Your task to perform on an android device: What is the recent news? Image 0: 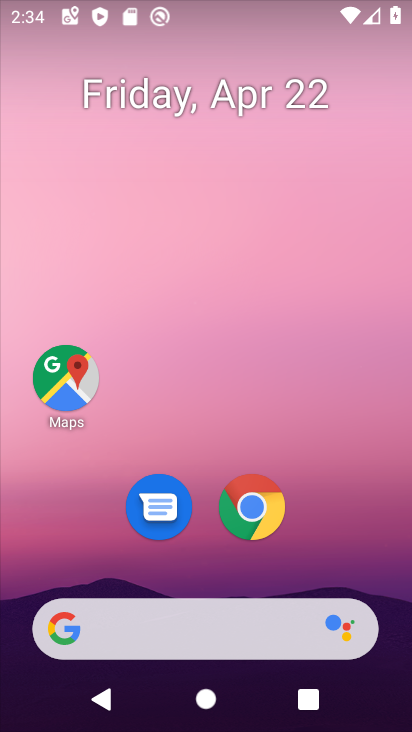
Step 0: drag from (16, 289) to (380, 229)
Your task to perform on an android device: What is the recent news? Image 1: 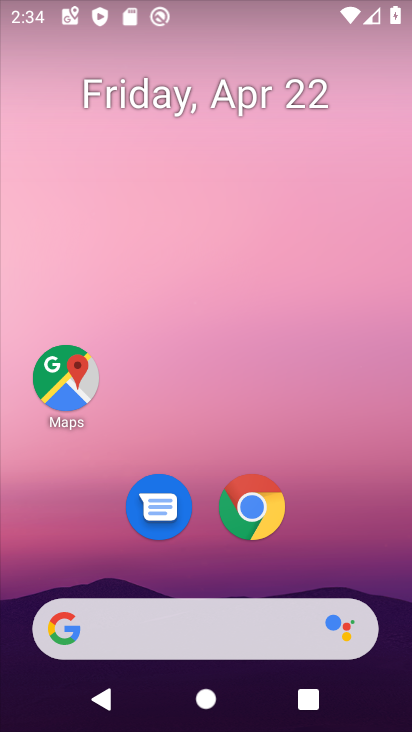
Step 1: task complete